Your task to perform on an android device: Is it going to rain this weekend? Image 0: 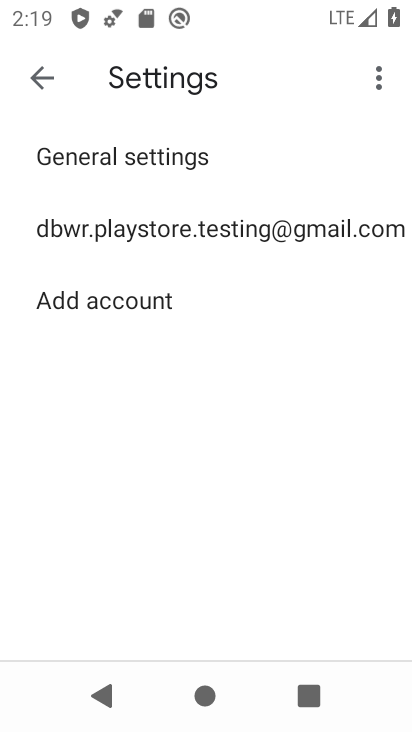
Step 0: press home button
Your task to perform on an android device: Is it going to rain this weekend? Image 1: 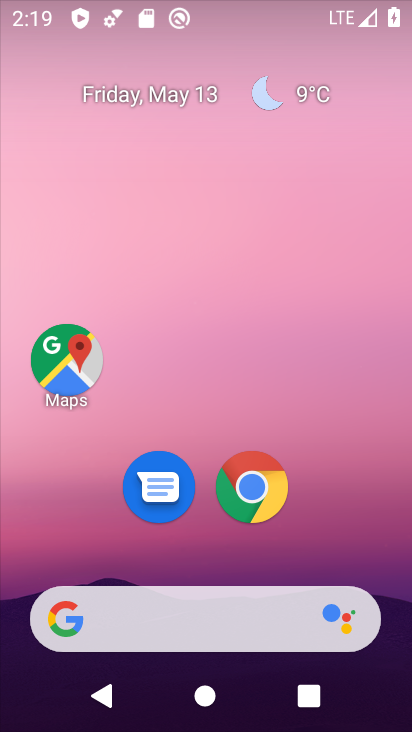
Step 1: drag from (335, 525) to (338, 84)
Your task to perform on an android device: Is it going to rain this weekend? Image 2: 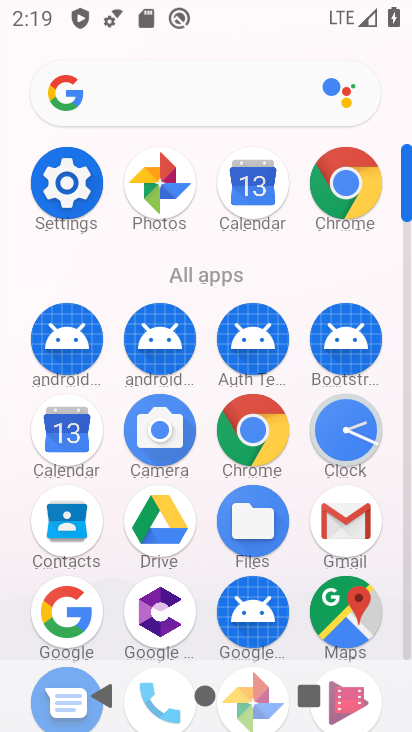
Step 2: click (68, 609)
Your task to perform on an android device: Is it going to rain this weekend? Image 3: 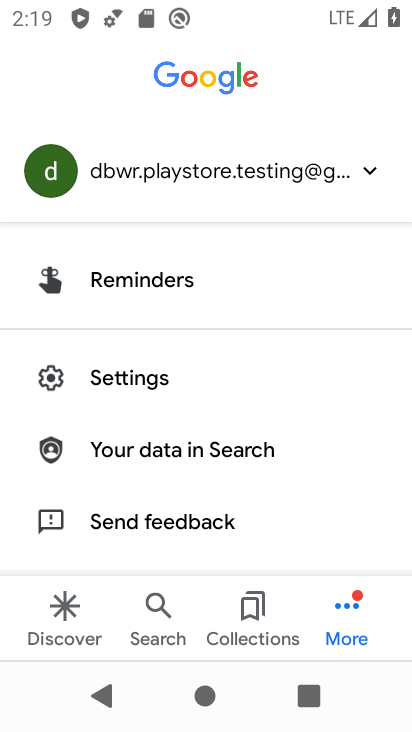
Step 3: press back button
Your task to perform on an android device: Is it going to rain this weekend? Image 4: 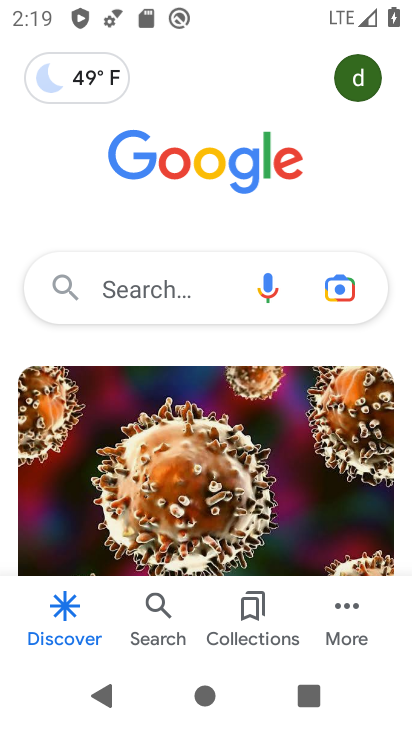
Step 4: click (141, 298)
Your task to perform on an android device: Is it going to rain this weekend? Image 5: 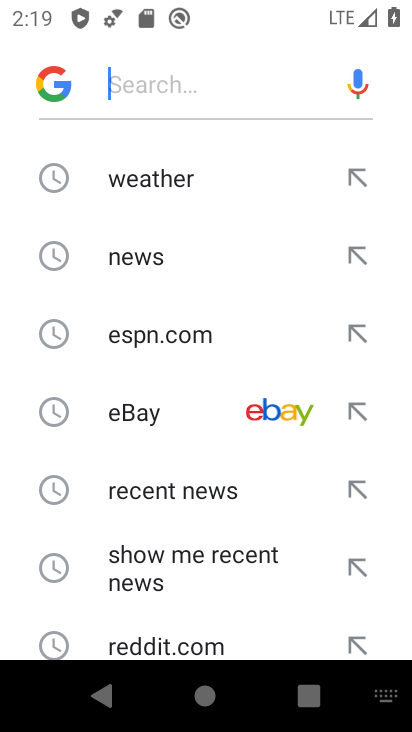
Step 5: type "is it going to rain this weekend"
Your task to perform on an android device: Is it going to rain this weekend? Image 6: 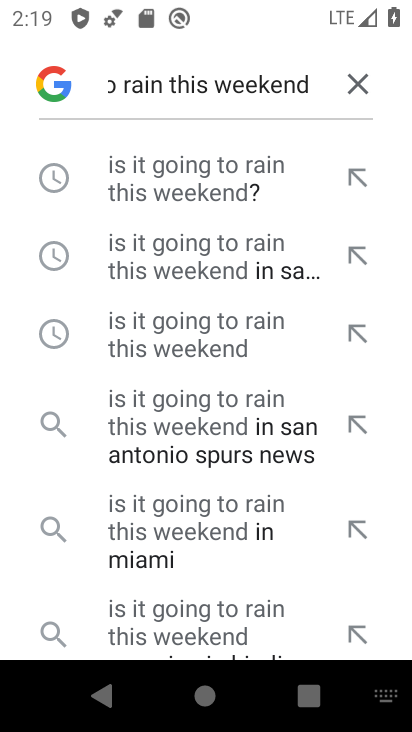
Step 6: click (194, 180)
Your task to perform on an android device: Is it going to rain this weekend? Image 7: 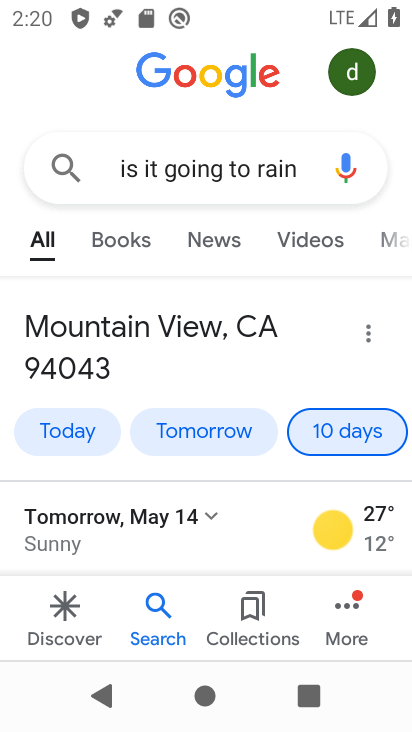
Step 7: task complete